Your task to perform on an android device: turn off smart reply in the gmail app Image 0: 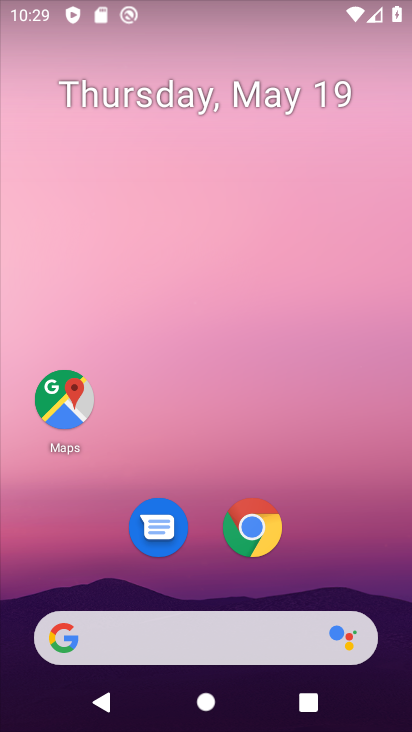
Step 0: drag from (196, 578) to (258, 59)
Your task to perform on an android device: turn off smart reply in the gmail app Image 1: 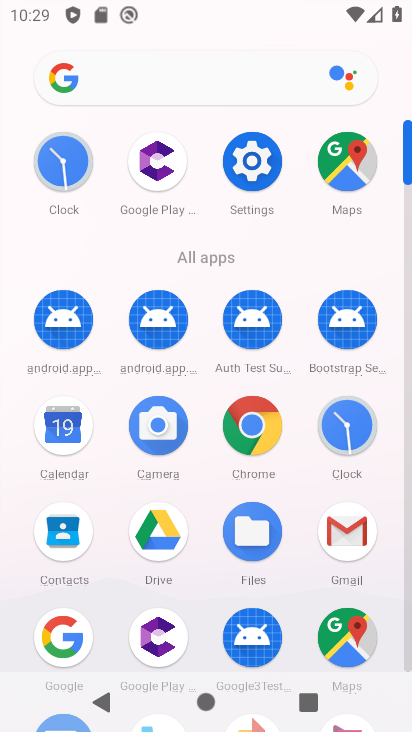
Step 1: click (344, 543)
Your task to perform on an android device: turn off smart reply in the gmail app Image 2: 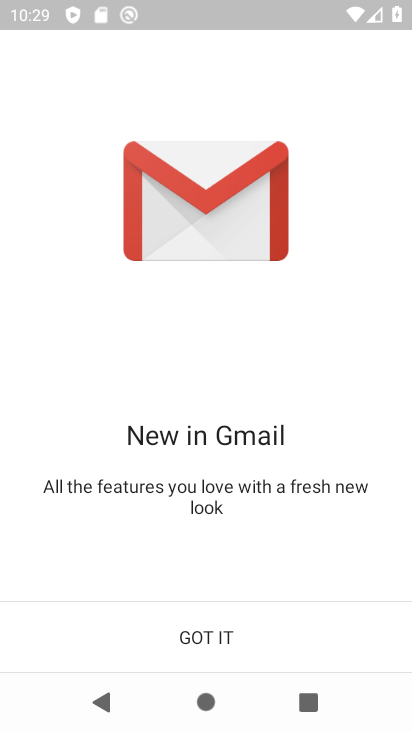
Step 2: click (243, 639)
Your task to perform on an android device: turn off smart reply in the gmail app Image 3: 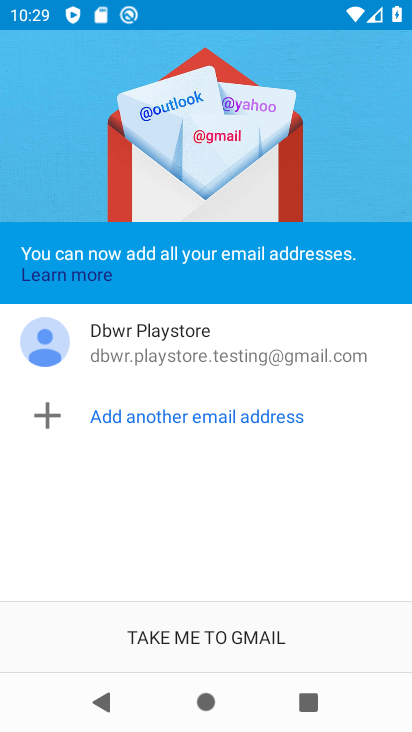
Step 3: click (244, 642)
Your task to perform on an android device: turn off smart reply in the gmail app Image 4: 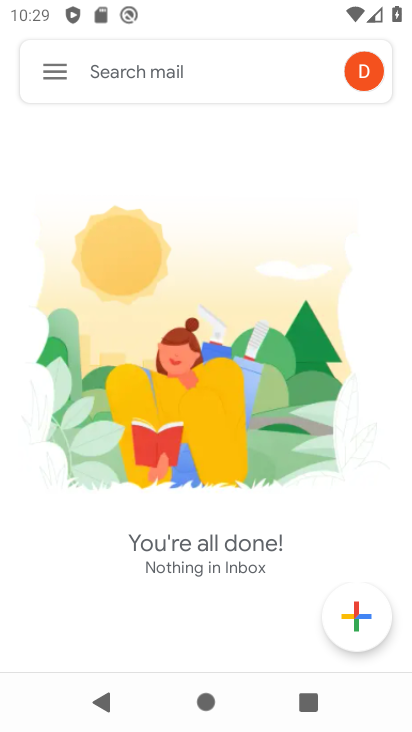
Step 4: click (40, 62)
Your task to perform on an android device: turn off smart reply in the gmail app Image 5: 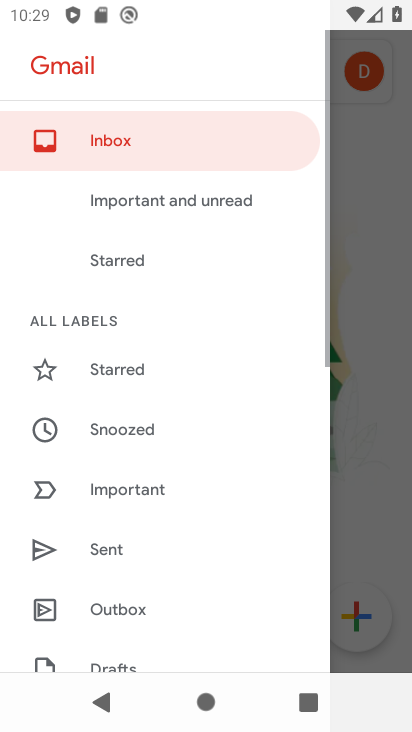
Step 5: drag from (107, 569) to (150, 179)
Your task to perform on an android device: turn off smart reply in the gmail app Image 6: 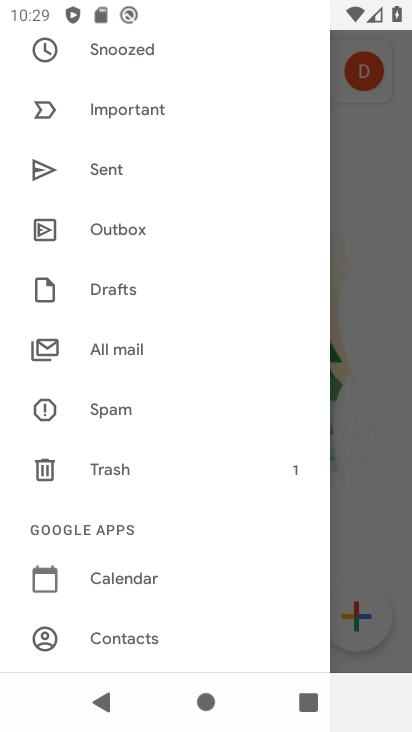
Step 6: drag from (140, 621) to (179, 300)
Your task to perform on an android device: turn off smart reply in the gmail app Image 7: 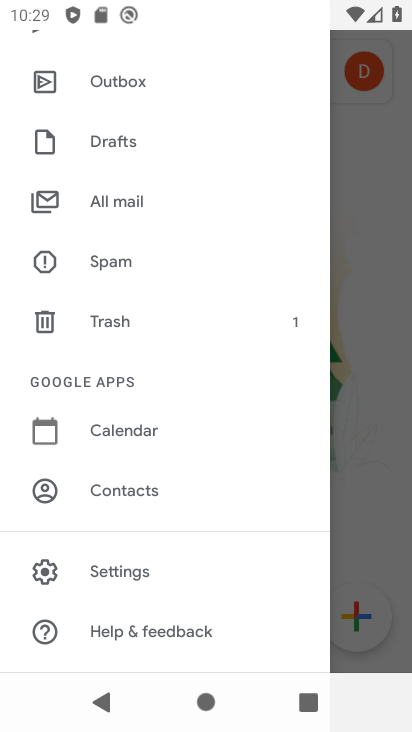
Step 7: click (129, 577)
Your task to perform on an android device: turn off smart reply in the gmail app Image 8: 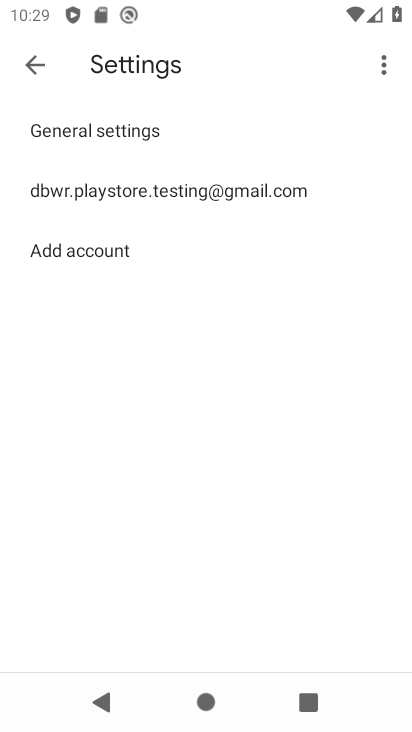
Step 8: click (143, 192)
Your task to perform on an android device: turn off smart reply in the gmail app Image 9: 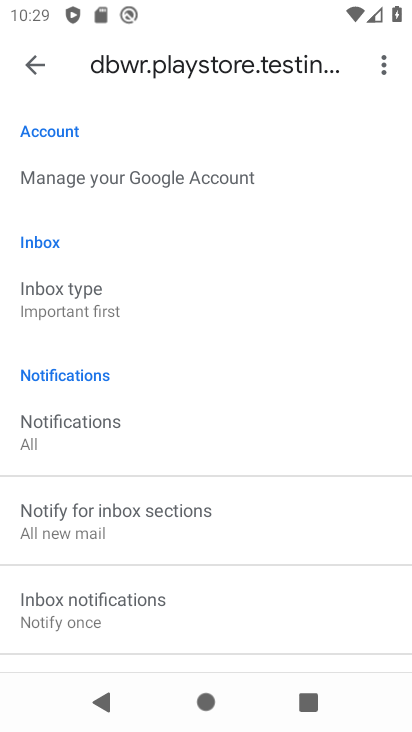
Step 9: drag from (160, 582) to (199, 289)
Your task to perform on an android device: turn off smart reply in the gmail app Image 10: 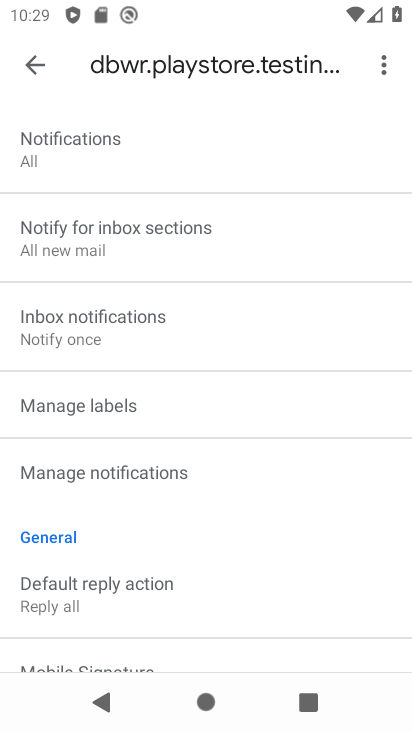
Step 10: drag from (138, 599) to (176, 416)
Your task to perform on an android device: turn off smart reply in the gmail app Image 11: 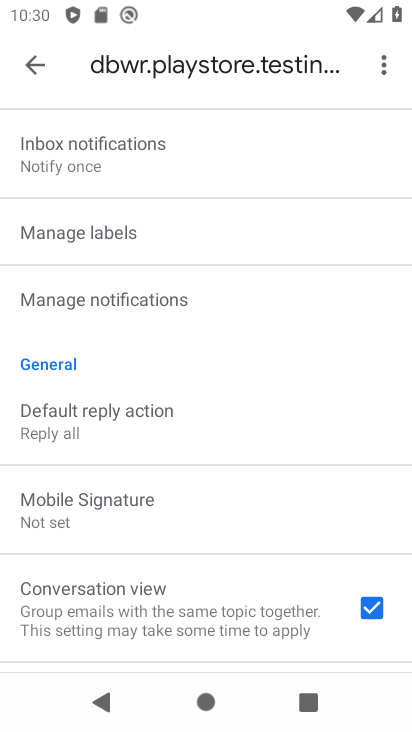
Step 11: drag from (149, 548) to (195, 299)
Your task to perform on an android device: turn off smart reply in the gmail app Image 12: 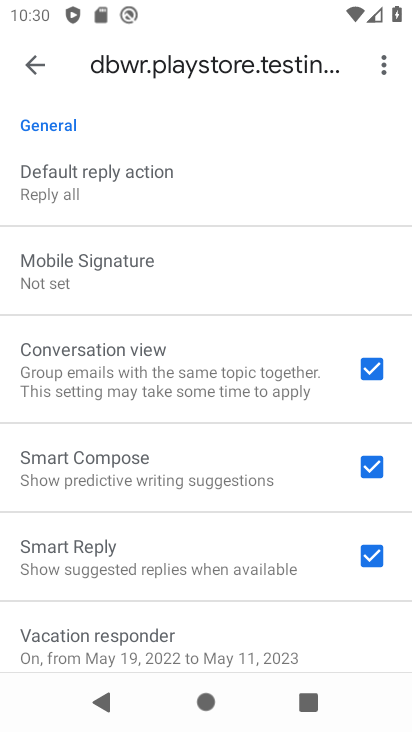
Step 12: click (354, 553)
Your task to perform on an android device: turn off smart reply in the gmail app Image 13: 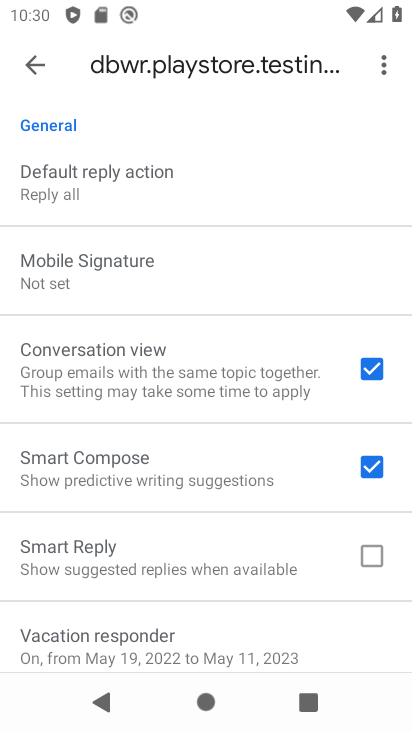
Step 13: task complete